Your task to perform on an android device: Open maps Image 0: 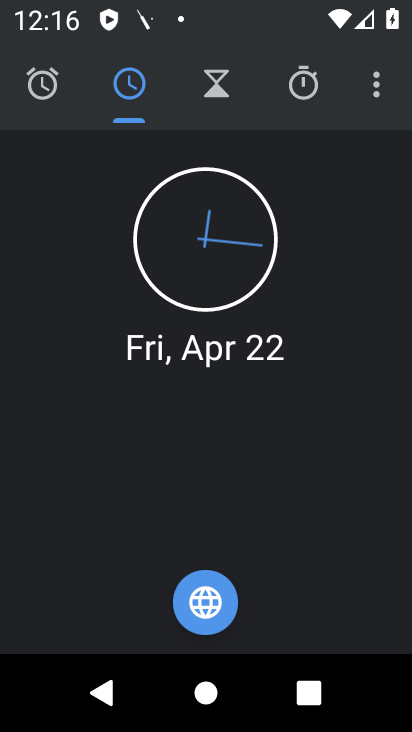
Step 0: press home button
Your task to perform on an android device: Open maps Image 1: 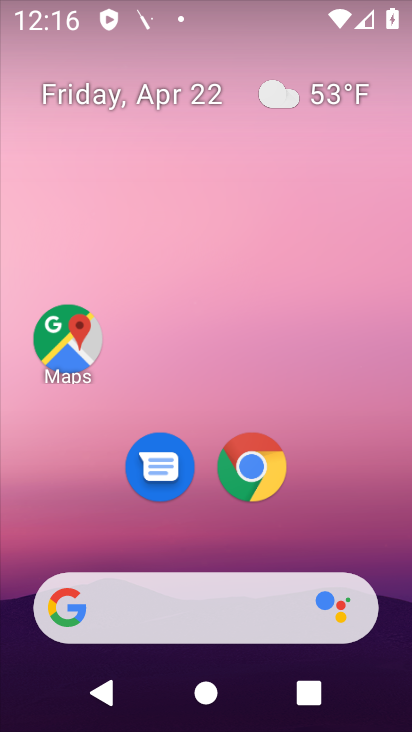
Step 1: click (60, 334)
Your task to perform on an android device: Open maps Image 2: 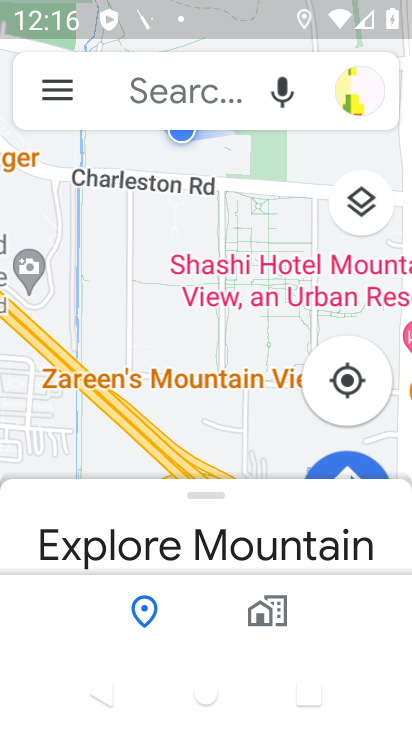
Step 2: task complete